Your task to perform on an android device: Do I have any events today? Image 0: 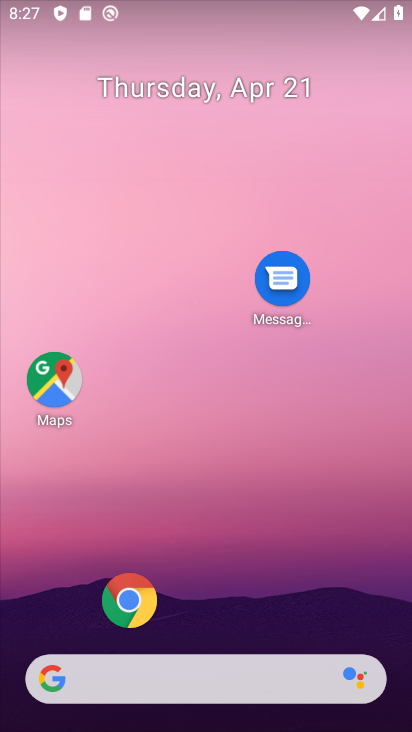
Step 0: drag from (71, 623) to (288, 308)
Your task to perform on an android device: Do I have any events today? Image 1: 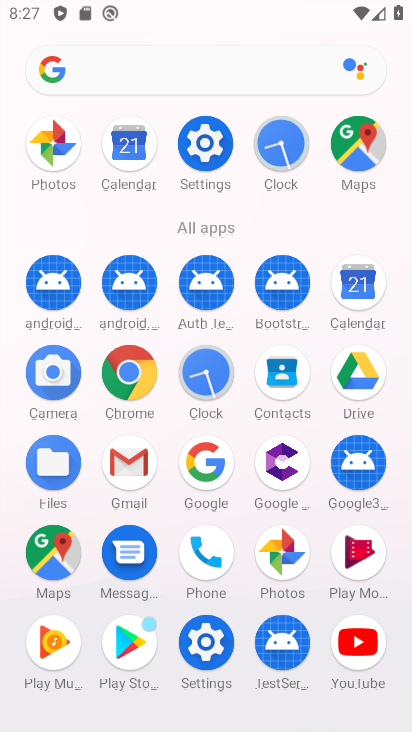
Step 1: click (373, 302)
Your task to perform on an android device: Do I have any events today? Image 2: 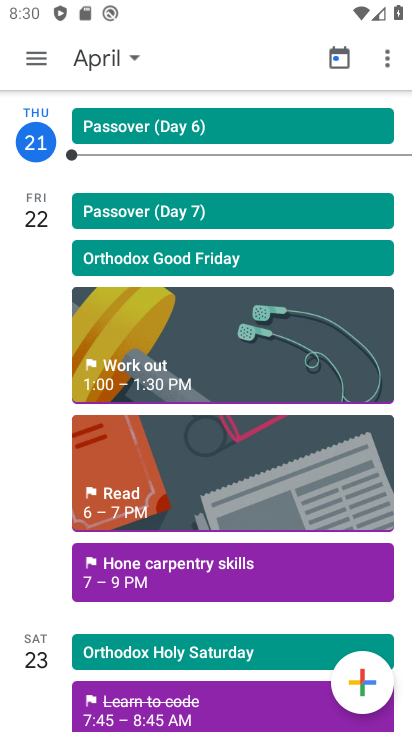
Step 2: task complete